Your task to perform on an android device: Is it going to rain tomorrow? Image 0: 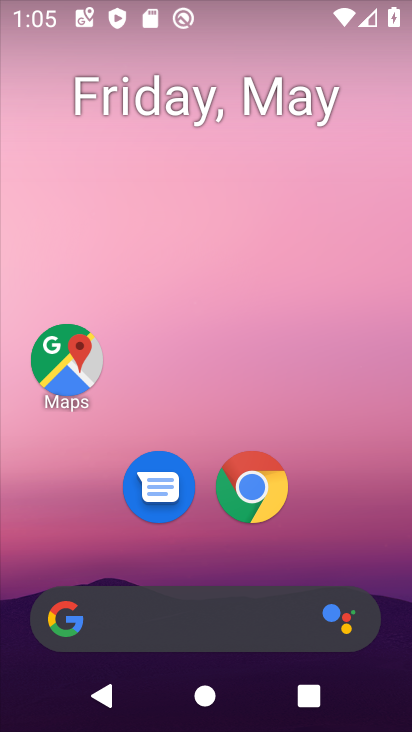
Step 0: click (199, 621)
Your task to perform on an android device: Is it going to rain tomorrow? Image 1: 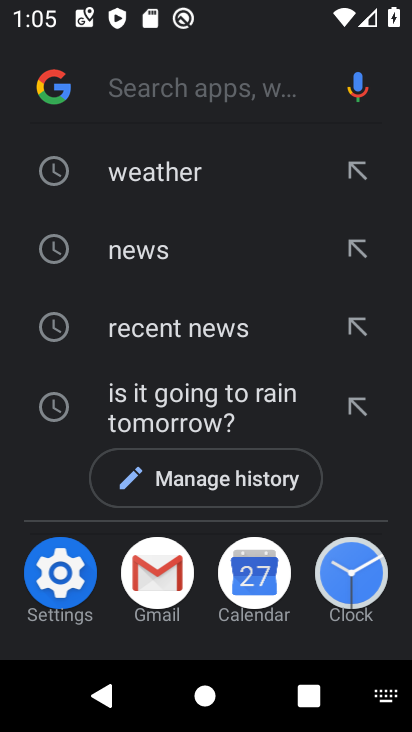
Step 1: click (228, 188)
Your task to perform on an android device: Is it going to rain tomorrow? Image 2: 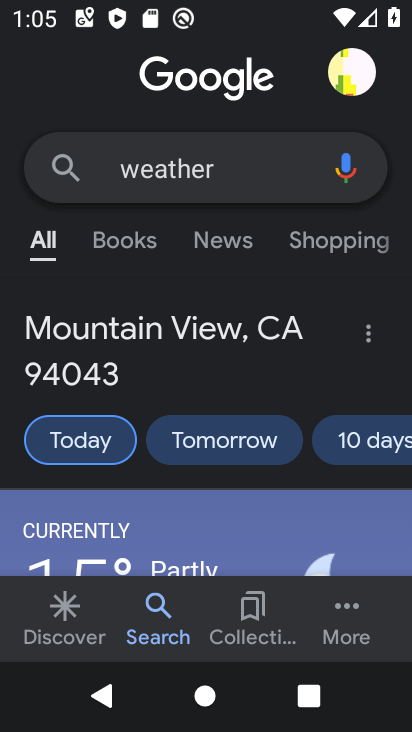
Step 2: click (217, 453)
Your task to perform on an android device: Is it going to rain tomorrow? Image 3: 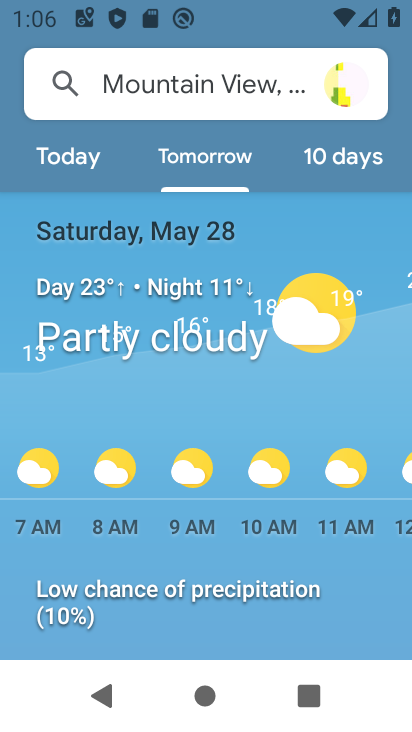
Step 3: task complete